Your task to perform on an android device: turn off smart reply in the gmail app Image 0: 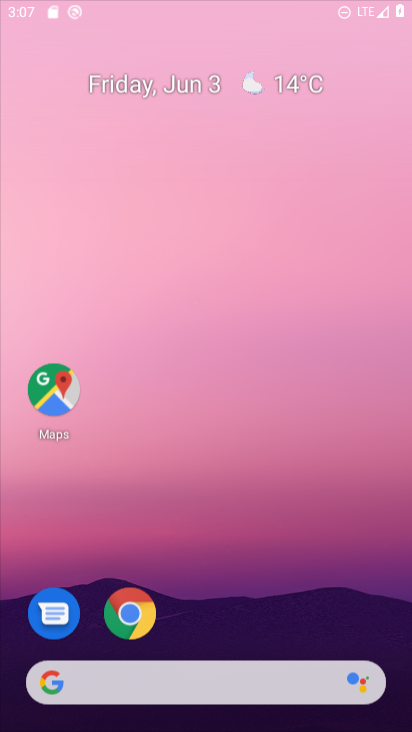
Step 0: drag from (356, 43) to (328, 21)
Your task to perform on an android device: turn off smart reply in the gmail app Image 1: 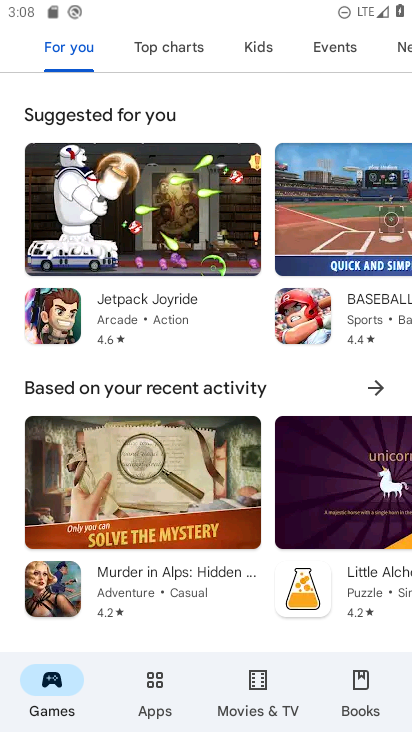
Step 1: drag from (217, 501) to (117, 22)
Your task to perform on an android device: turn off smart reply in the gmail app Image 2: 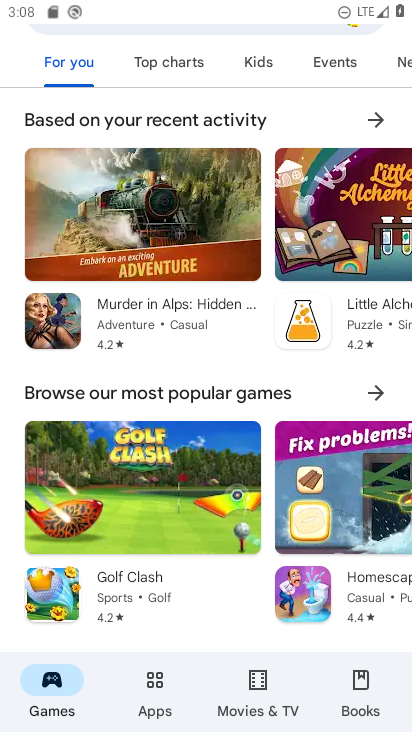
Step 2: drag from (183, 101) to (223, 561)
Your task to perform on an android device: turn off smart reply in the gmail app Image 3: 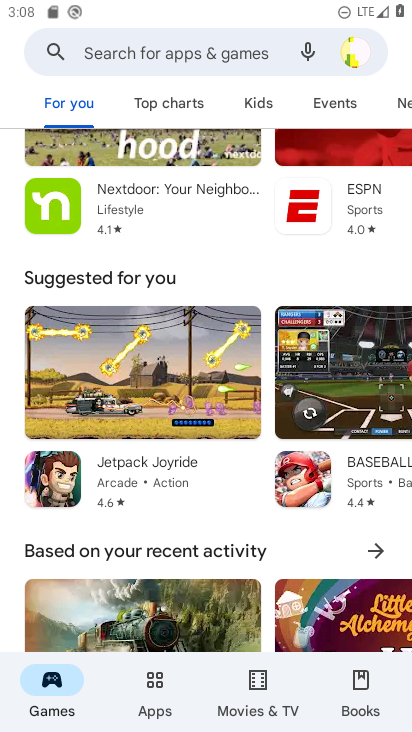
Step 3: press home button
Your task to perform on an android device: turn off smart reply in the gmail app Image 4: 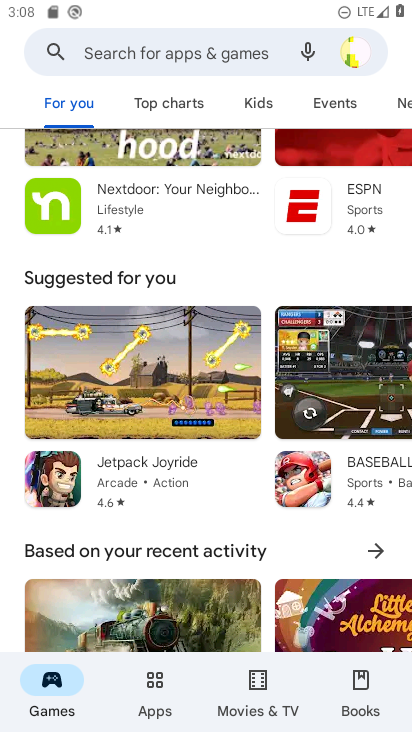
Step 4: drag from (143, 550) to (220, 183)
Your task to perform on an android device: turn off smart reply in the gmail app Image 5: 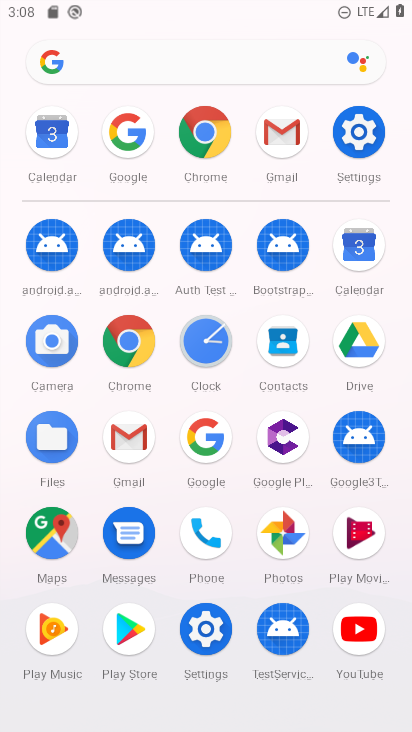
Step 5: click (127, 437)
Your task to perform on an android device: turn off smart reply in the gmail app Image 6: 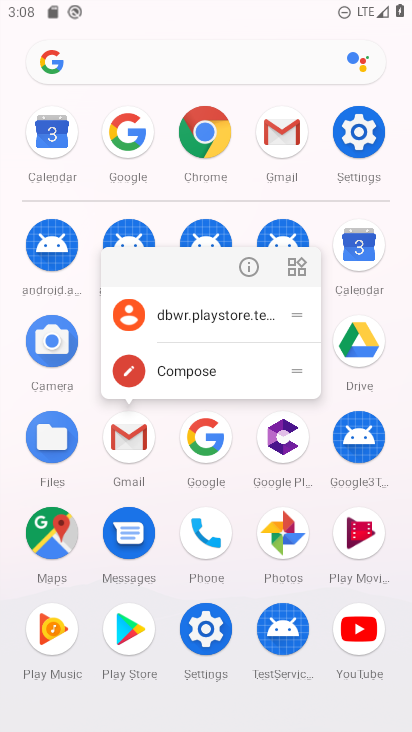
Step 6: click (239, 278)
Your task to perform on an android device: turn off smart reply in the gmail app Image 7: 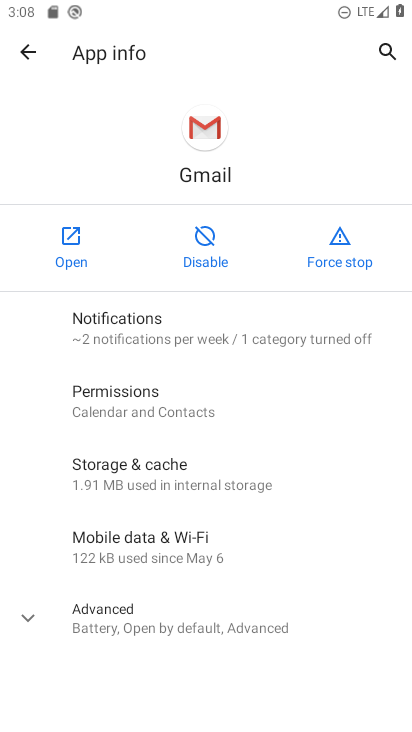
Step 7: drag from (16, 581) to (171, 13)
Your task to perform on an android device: turn off smart reply in the gmail app Image 8: 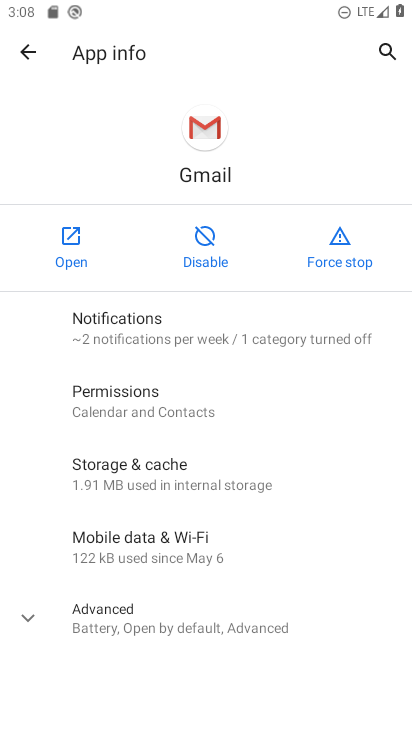
Step 8: click (72, 241)
Your task to perform on an android device: turn off smart reply in the gmail app Image 9: 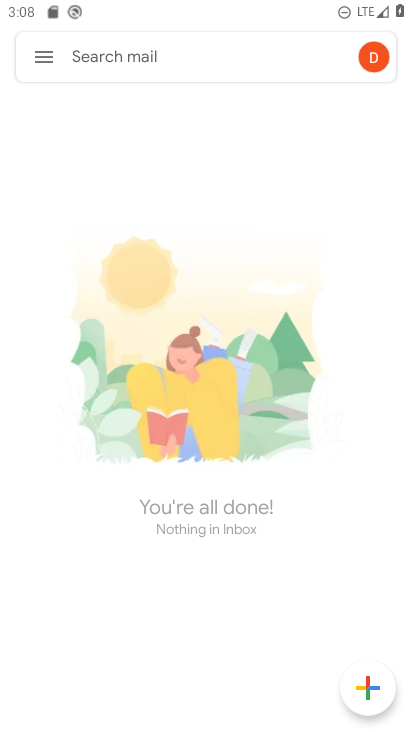
Step 9: drag from (201, 507) to (269, 123)
Your task to perform on an android device: turn off smart reply in the gmail app Image 10: 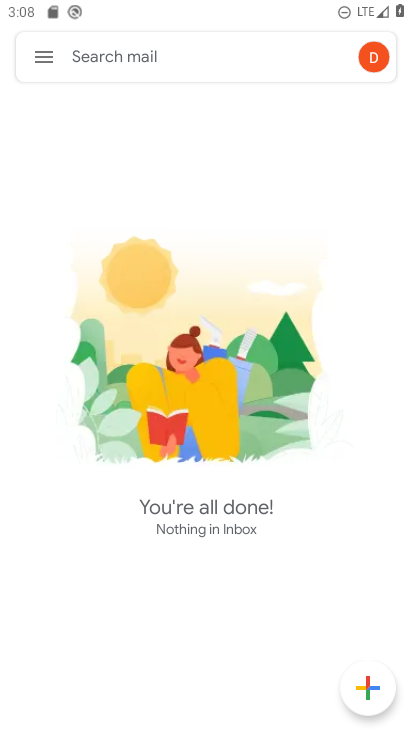
Step 10: click (38, 51)
Your task to perform on an android device: turn off smart reply in the gmail app Image 11: 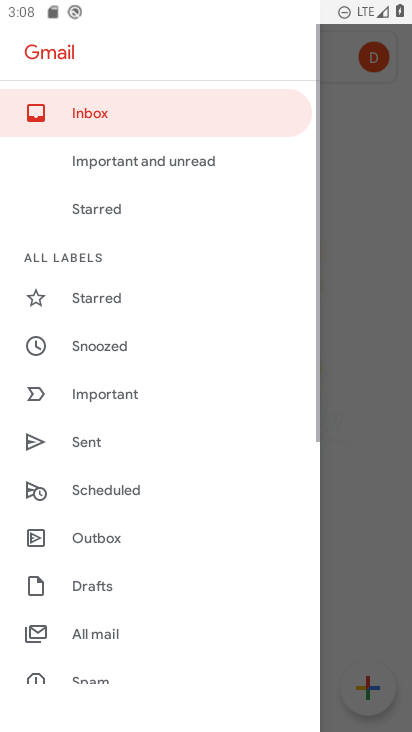
Step 11: drag from (55, 470) to (170, 77)
Your task to perform on an android device: turn off smart reply in the gmail app Image 12: 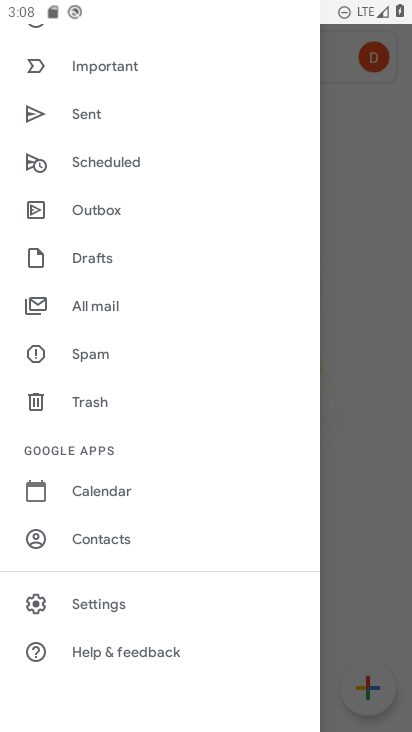
Step 12: click (112, 607)
Your task to perform on an android device: turn off smart reply in the gmail app Image 13: 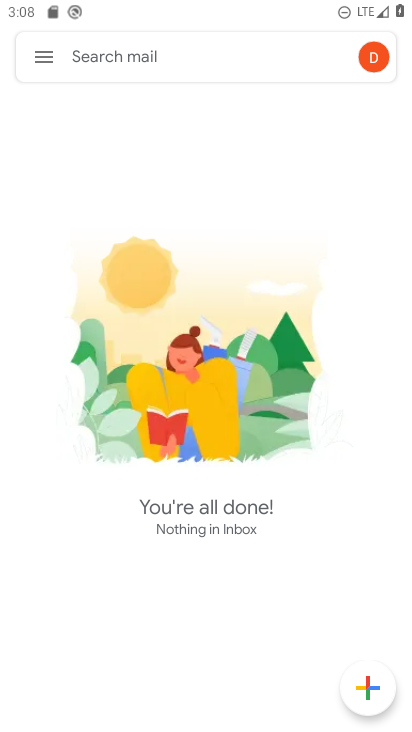
Step 13: drag from (111, 606) to (194, 206)
Your task to perform on an android device: turn off smart reply in the gmail app Image 14: 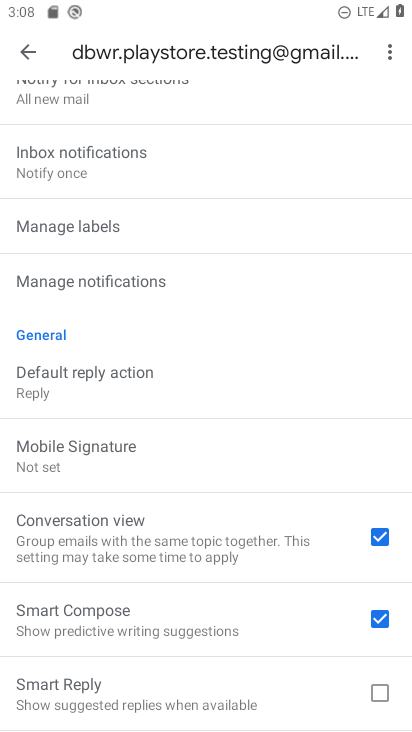
Step 14: click (142, 683)
Your task to perform on an android device: turn off smart reply in the gmail app Image 15: 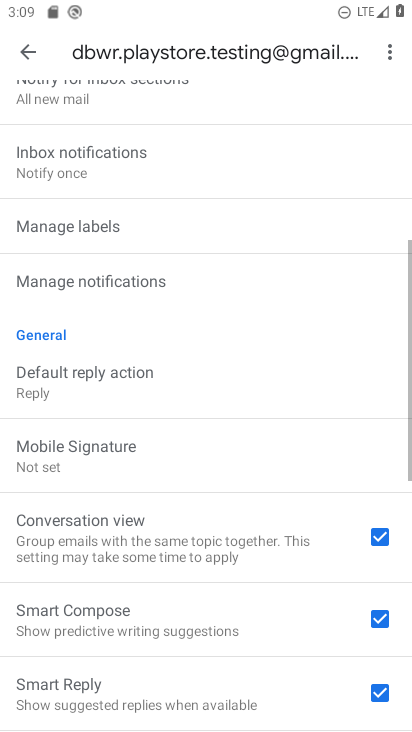
Step 15: click (142, 683)
Your task to perform on an android device: turn off smart reply in the gmail app Image 16: 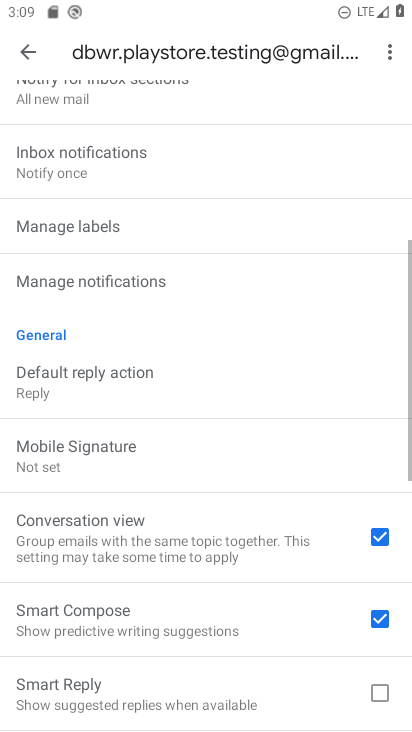
Step 16: task complete